Your task to perform on an android device: turn on data saver in the chrome app Image 0: 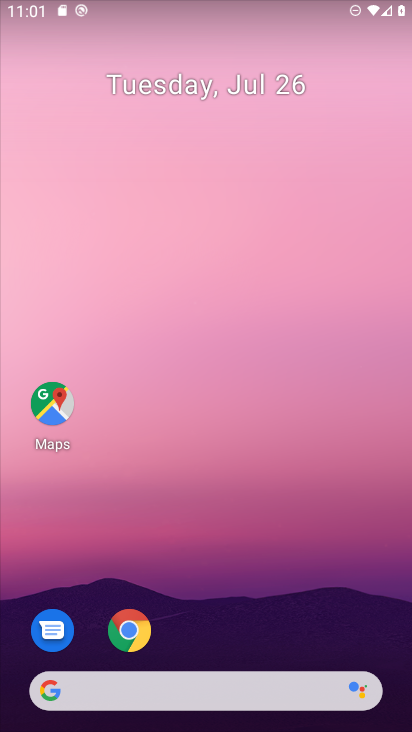
Step 0: click (129, 630)
Your task to perform on an android device: turn on data saver in the chrome app Image 1: 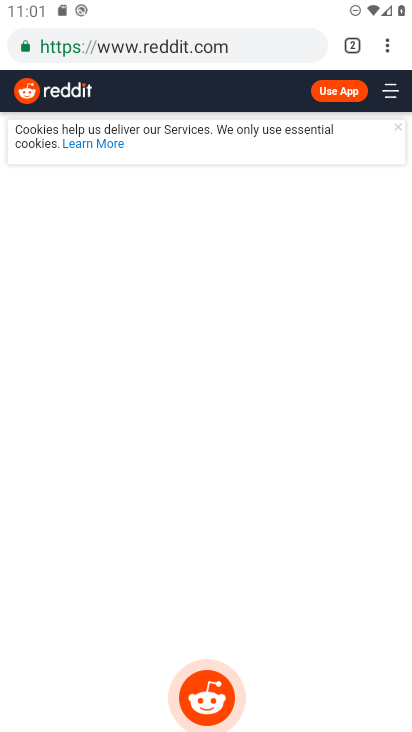
Step 1: click (388, 50)
Your task to perform on an android device: turn on data saver in the chrome app Image 2: 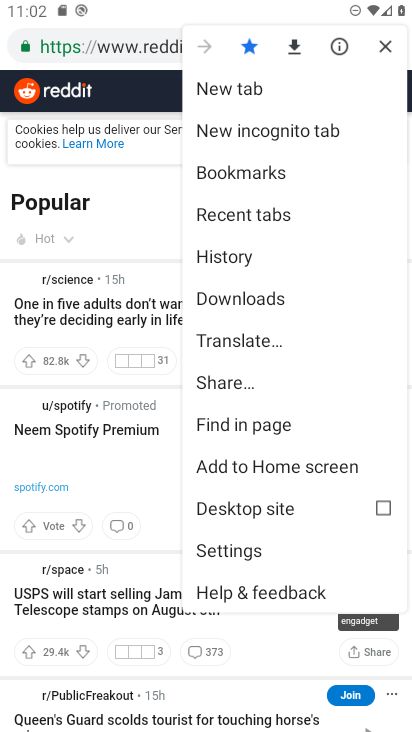
Step 2: click (224, 550)
Your task to perform on an android device: turn on data saver in the chrome app Image 3: 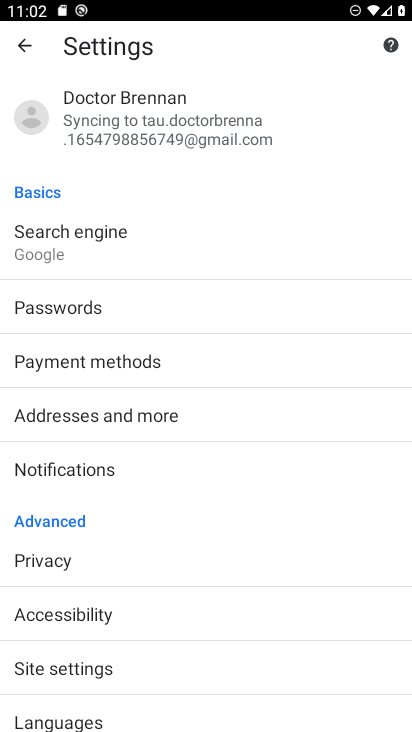
Step 3: drag from (185, 679) to (215, 299)
Your task to perform on an android device: turn on data saver in the chrome app Image 4: 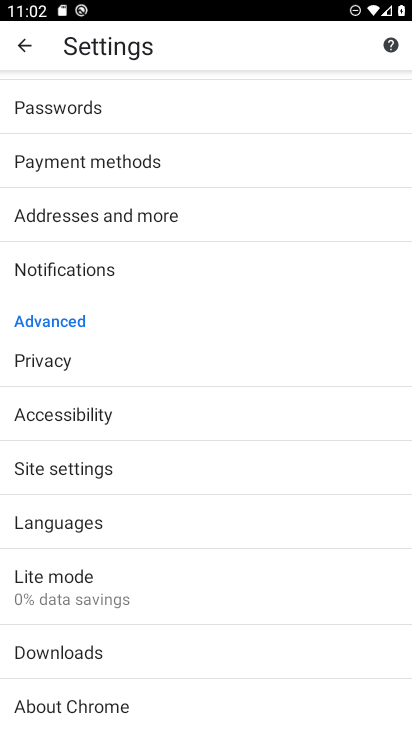
Step 4: click (54, 583)
Your task to perform on an android device: turn on data saver in the chrome app Image 5: 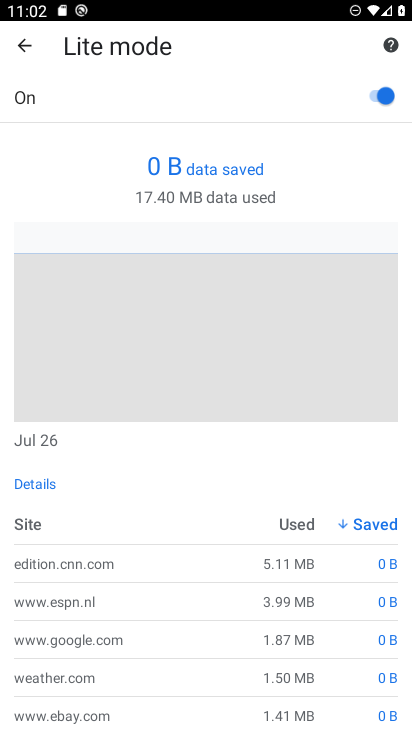
Step 5: task complete